Your task to perform on an android device: Open Google Maps Image 0: 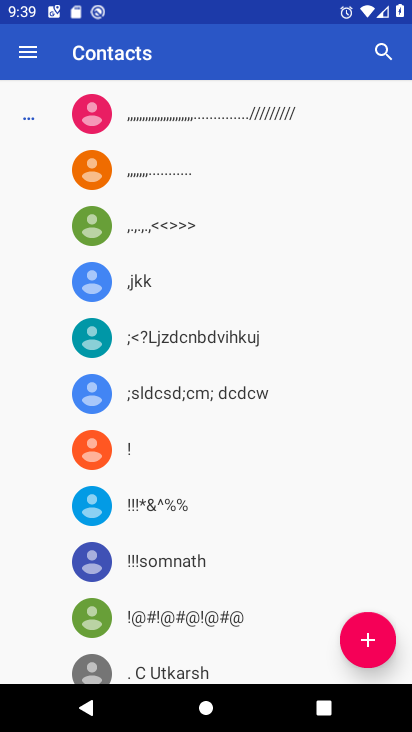
Step 0: press home button
Your task to perform on an android device: Open Google Maps Image 1: 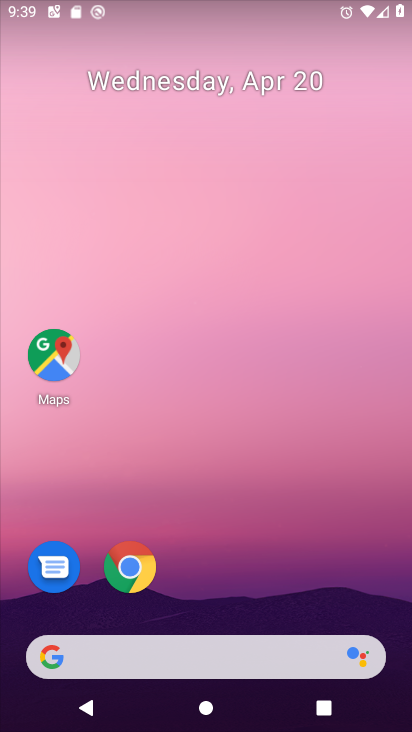
Step 1: drag from (358, 575) to (387, 240)
Your task to perform on an android device: Open Google Maps Image 2: 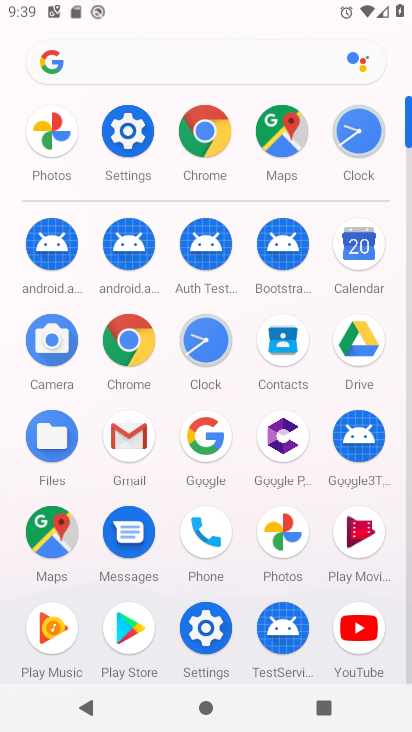
Step 2: click (42, 544)
Your task to perform on an android device: Open Google Maps Image 3: 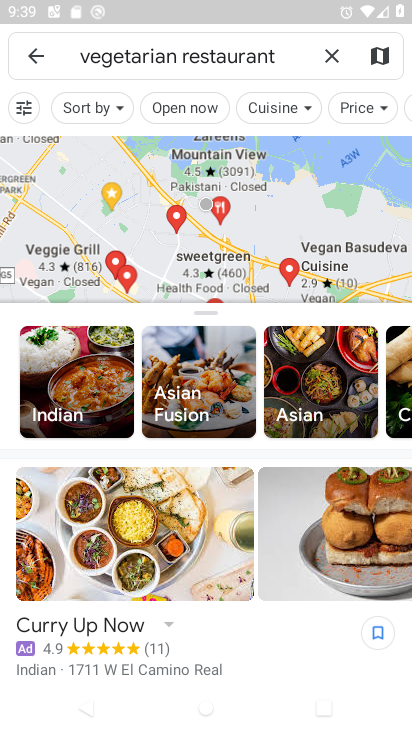
Step 3: task complete